Your task to perform on an android device: change the clock display to analog Image 0: 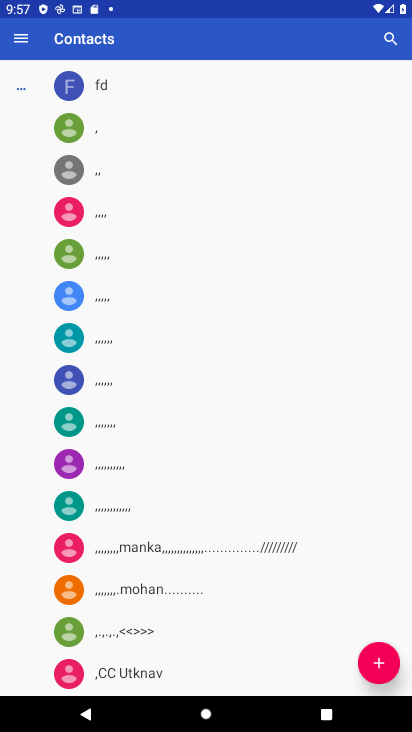
Step 0: press home button
Your task to perform on an android device: change the clock display to analog Image 1: 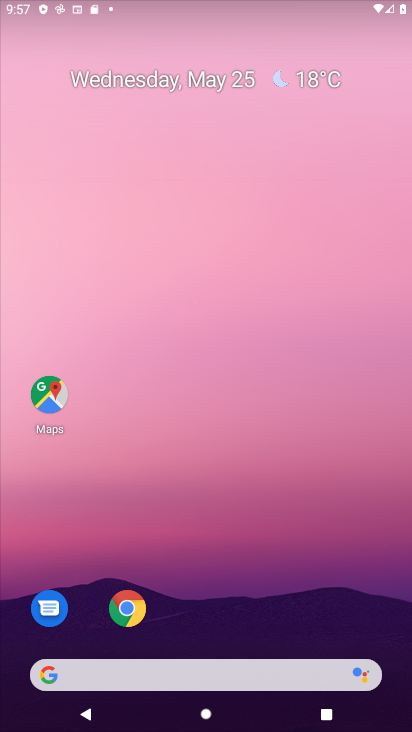
Step 1: drag from (307, 577) to (229, 70)
Your task to perform on an android device: change the clock display to analog Image 2: 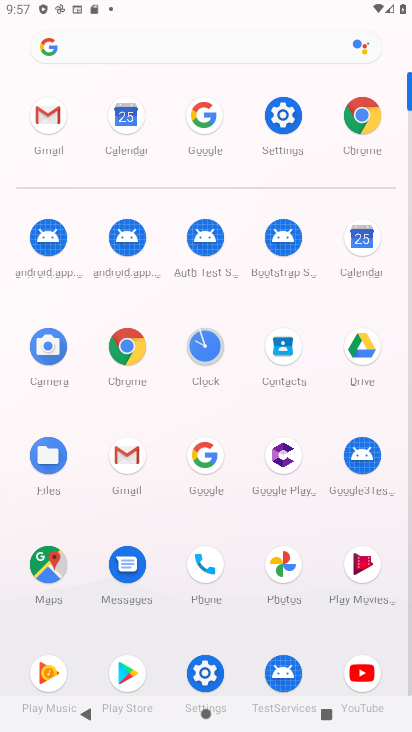
Step 2: click (207, 342)
Your task to perform on an android device: change the clock display to analog Image 3: 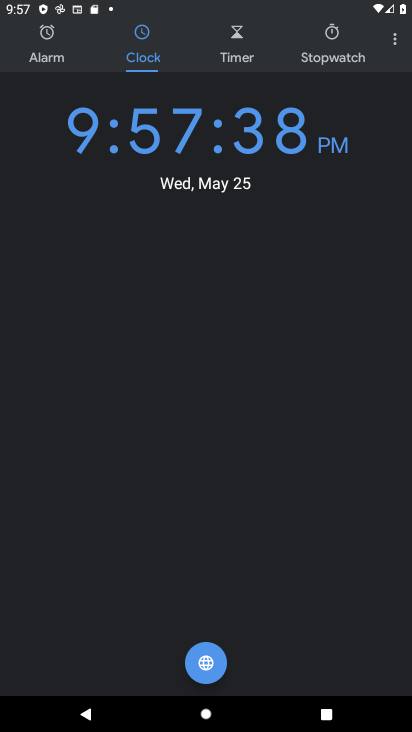
Step 3: click (390, 38)
Your task to perform on an android device: change the clock display to analog Image 4: 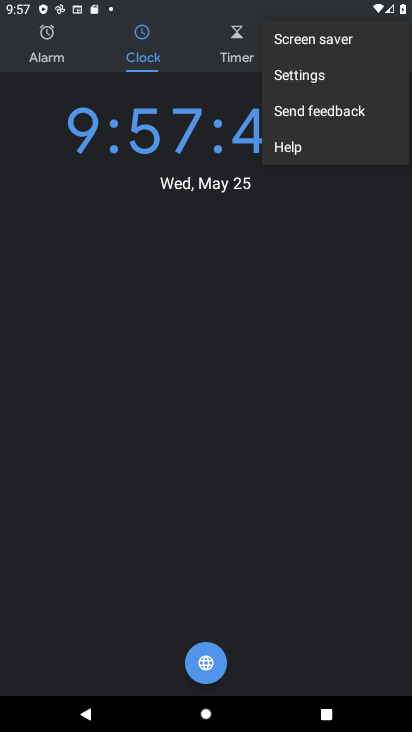
Step 4: click (316, 65)
Your task to perform on an android device: change the clock display to analog Image 5: 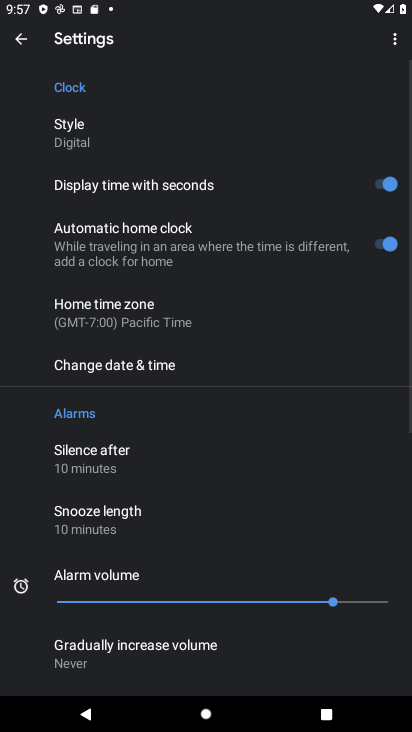
Step 5: click (163, 132)
Your task to perform on an android device: change the clock display to analog Image 6: 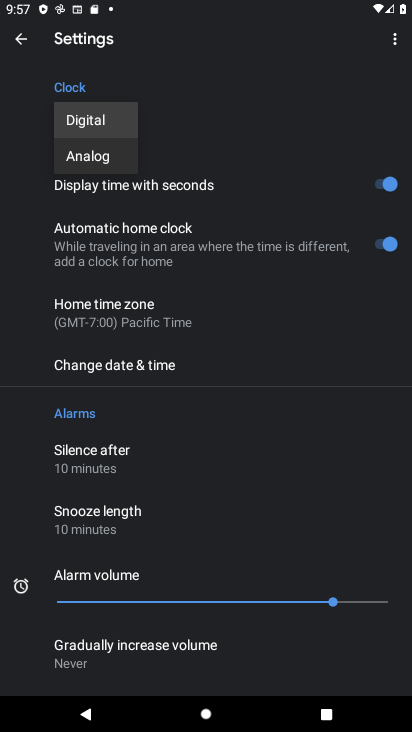
Step 6: click (137, 154)
Your task to perform on an android device: change the clock display to analog Image 7: 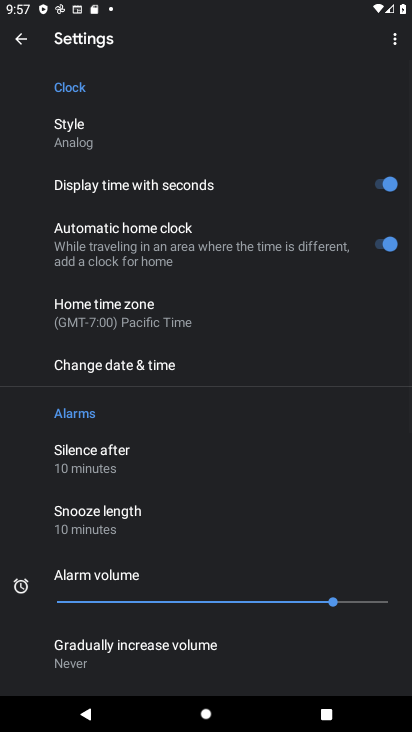
Step 7: task complete